Your task to perform on an android device: change notification settings in the gmail app Image 0: 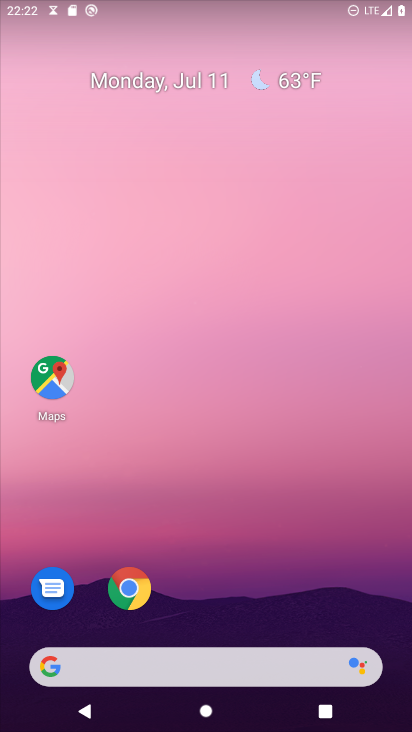
Step 0: press home button
Your task to perform on an android device: change notification settings in the gmail app Image 1: 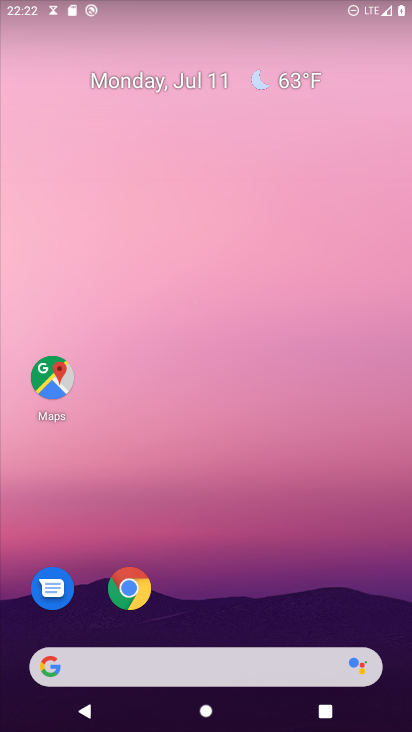
Step 1: press home button
Your task to perform on an android device: change notification settings in the gmail app Image 2: 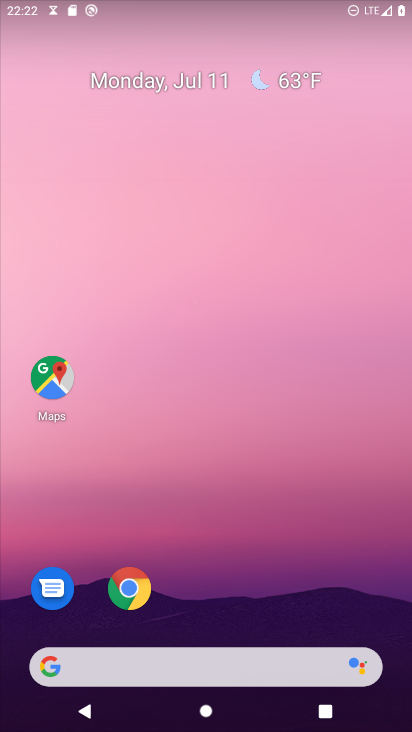
Step 2: drag from (245, 599) to (304, 89)
Your task to perform on an android device: change notification settings in the gmail app Image 3: 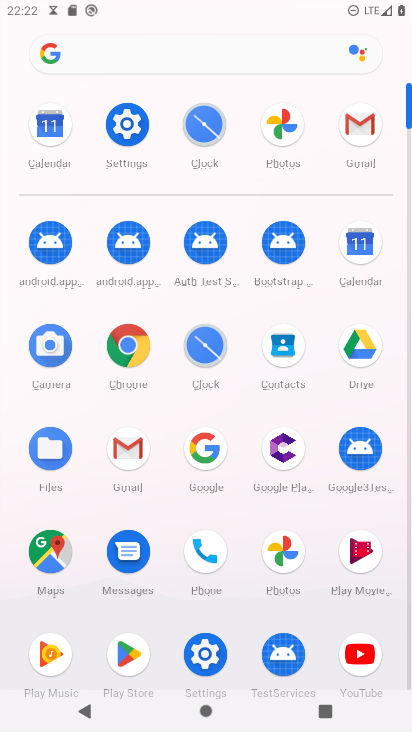
Step 3: click (359, 130)
Your task to perform on an android device: change notification settings in the gmail app Image 4: 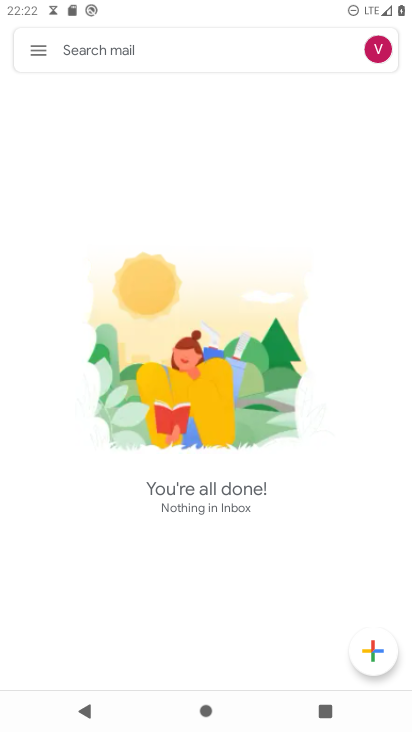
Step 4: click (42, 50)
Your task to perform on an android device: change notification settings in the gmail app Image 5: 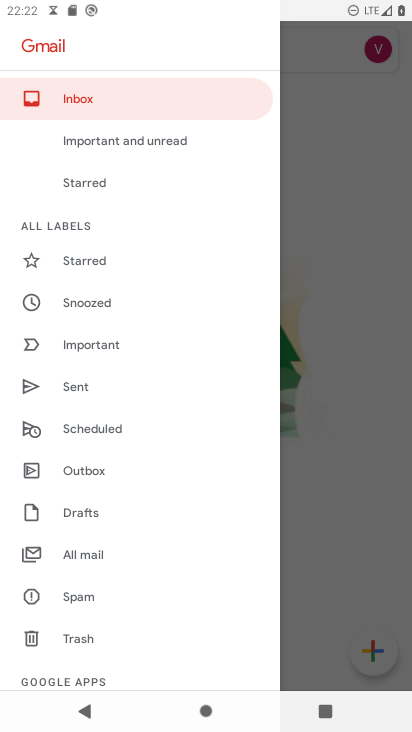
Step 5: drag from (160, 613) to (180, 75)
Your task to perform on an android device: change notification settings in the gmail app Image 6: 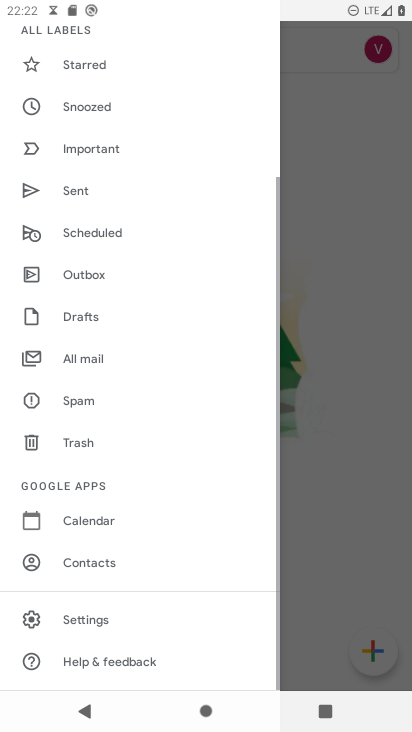
Step 6: click (94, 620)
Your task to perform on an android device: change notification settings in the gmail app Image 7: 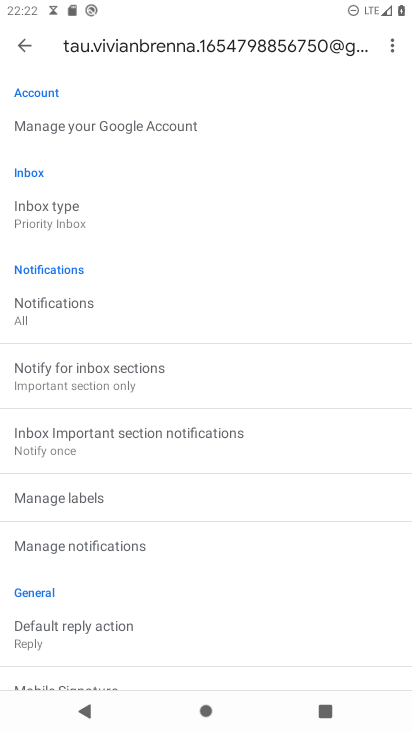
Step 7: drag from (32, 316) to (68, 560)
Your task to perform on an android device: change notification settings in the gmail app Image 8: 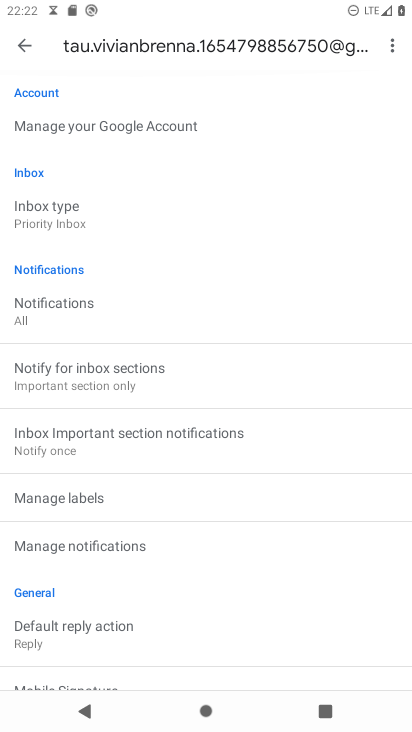
Step 8: click (76, 547)
Your task to perform on an android device: change notification settings in the gmail app Image 9: 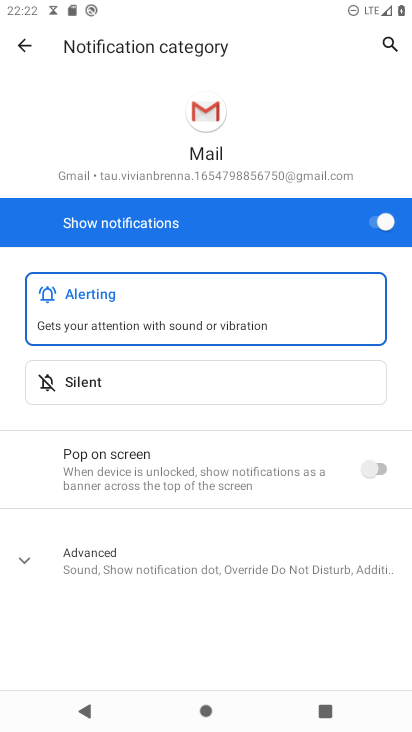
Step 9: click (377, 219)
Your task to perform on an android device: change notification settings in the gmail app Image 10: 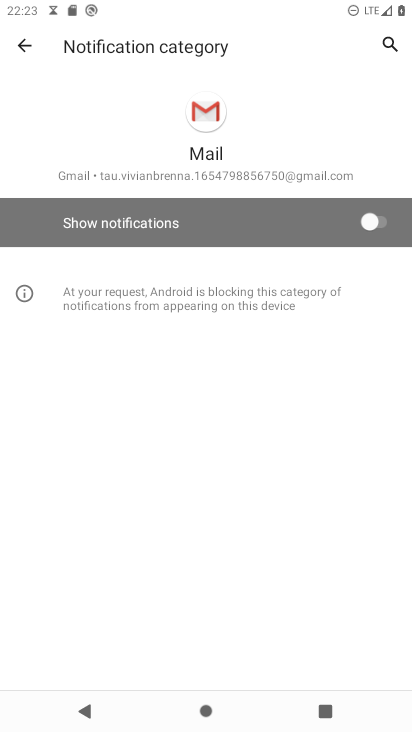
Step 10: task complete